Your task to perform on an android device: Open ESPN.com Image 0: 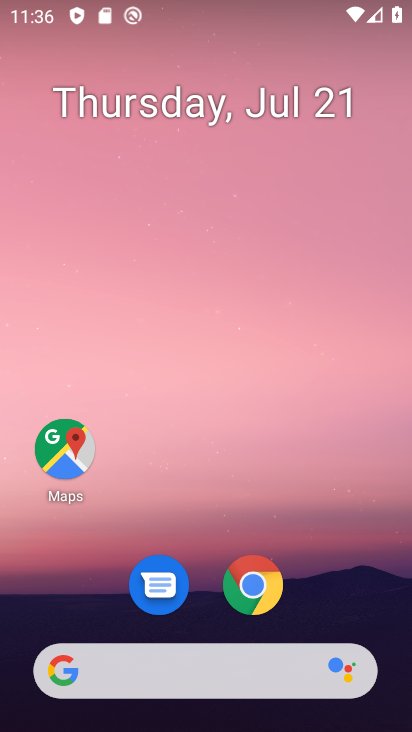
Step 0: press home button
Your task to perform on an android device: Open ESPN.com Image 1: 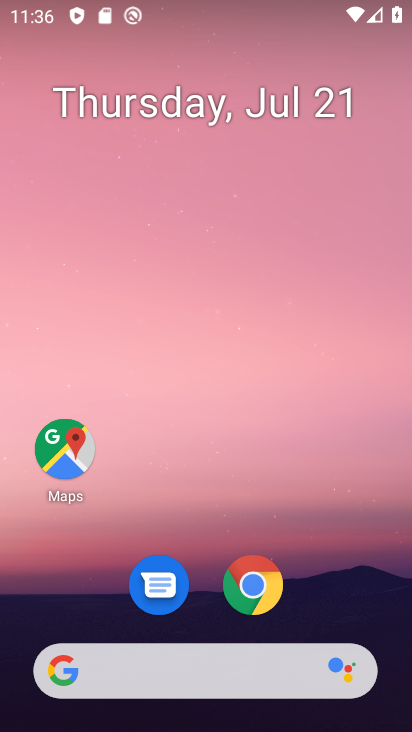
Step 1: click (263, 584)
Your task to perform on an android device: Open ESPN.com Image 2: 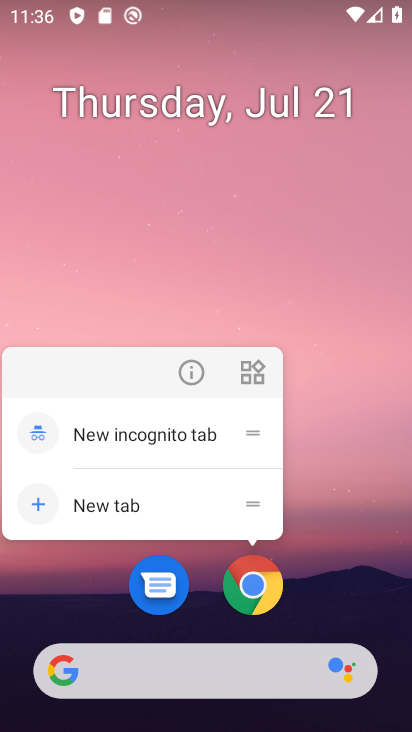
Step 2: click (250, 591)
Your task to perform on an android device: Open ESPN.com Image 3: 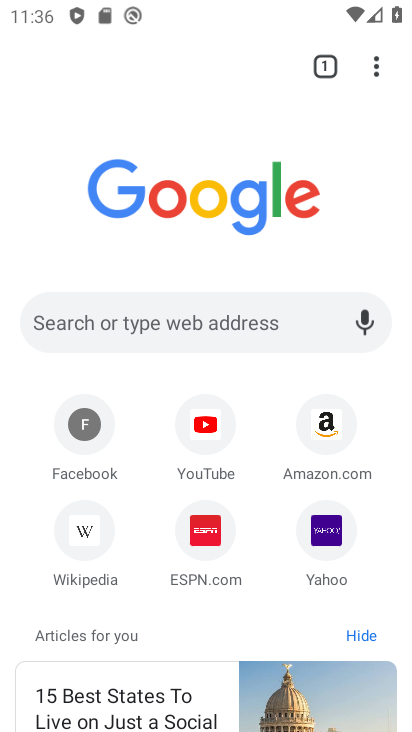
Step 3: click (211, 529)
Your task to perform on an android device: Open ESPN.com Image 4: 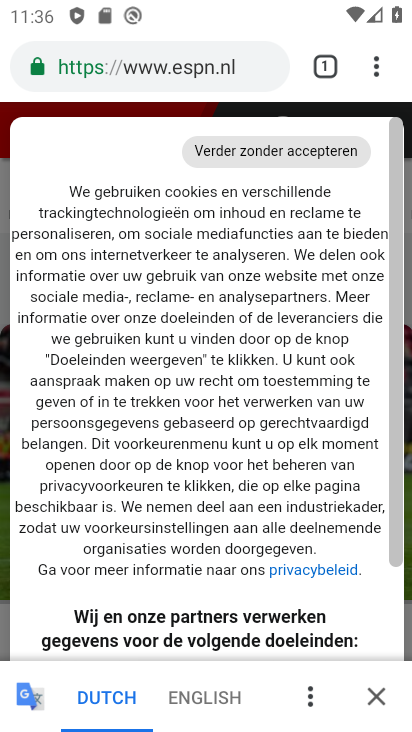
Step 4: click (200, 695)
Your task to perform on an android device: Open ESPN.com Image 5: 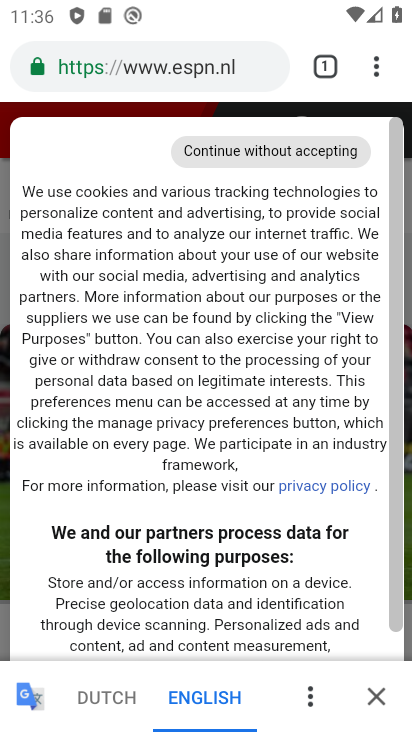
Step 5: drag from (144, 610) to (307, 233)
Your task to perform on an android device: Open ESPN.com Image 6: 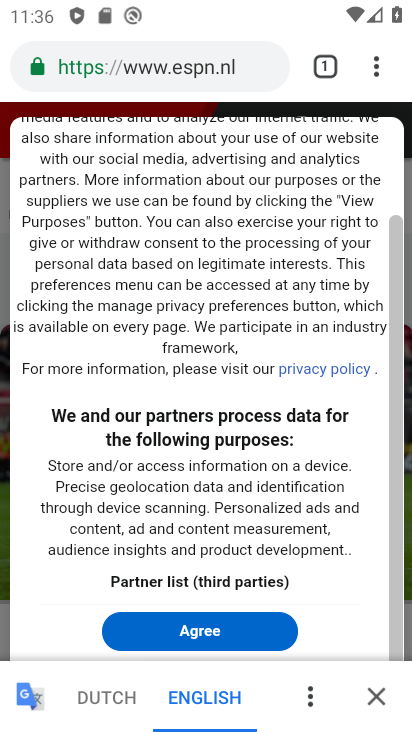
Step 6: click (195, 635)
Your task to perform on an android device: Open ESPN.com Image 7: 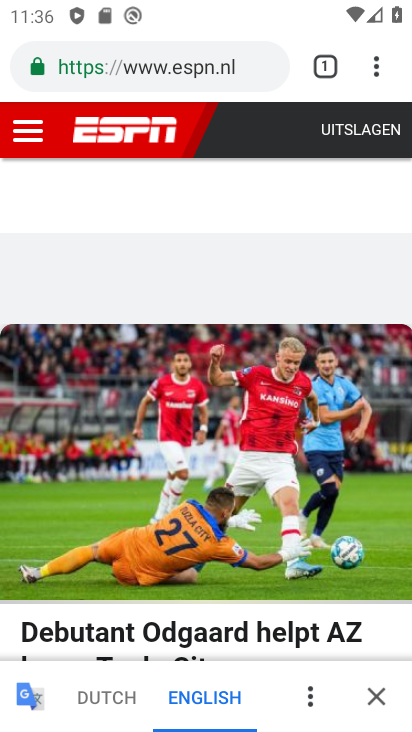
Step 7: task complete